Your task to perform on an android device: add a contact in the contacts app Image 0: 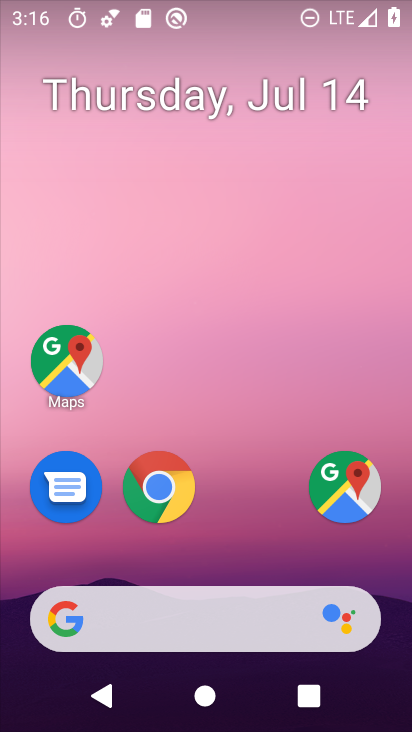
Step 0: drag from (274, 542) to (300, 121)
Your task to perform on an android device: add a contact in the contacts app Image 1: 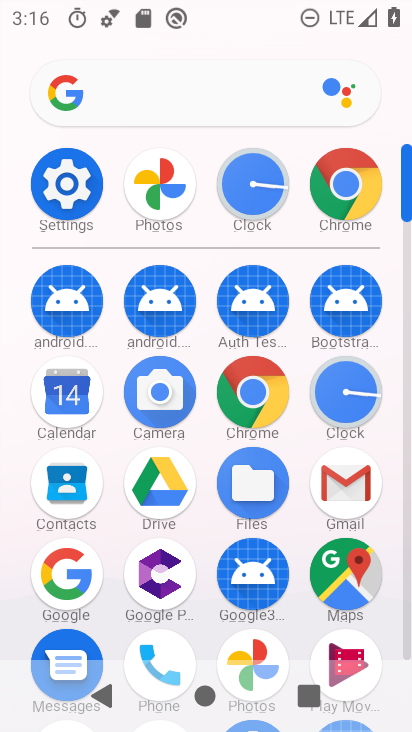
Step 1: click (81, 487)
Your task to perform on an android device: add a contact in the contacts app Image 2: 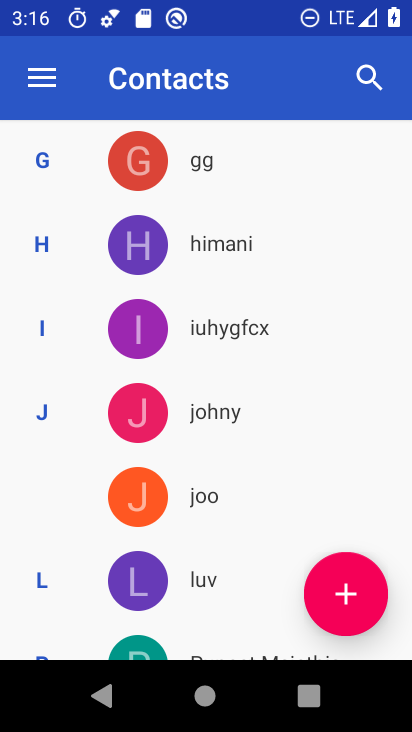
Step 2: click (343, 593)
Your task to perform on an android device: add a contact in the contacts app Image 3: 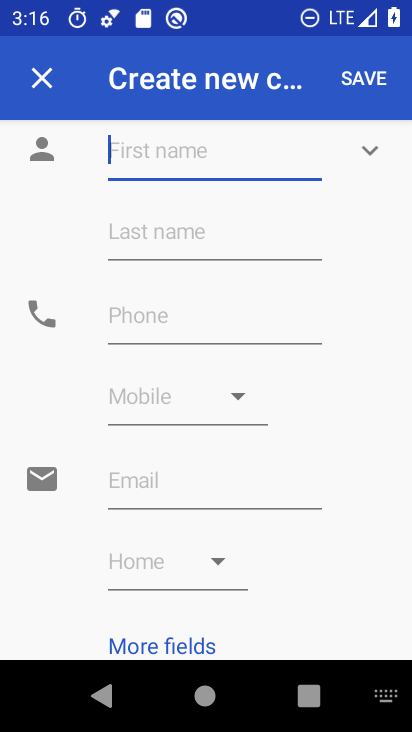
Step 3: type "lolo"
Your task to perform on an android device: add a contact in the contacts app Image 4: 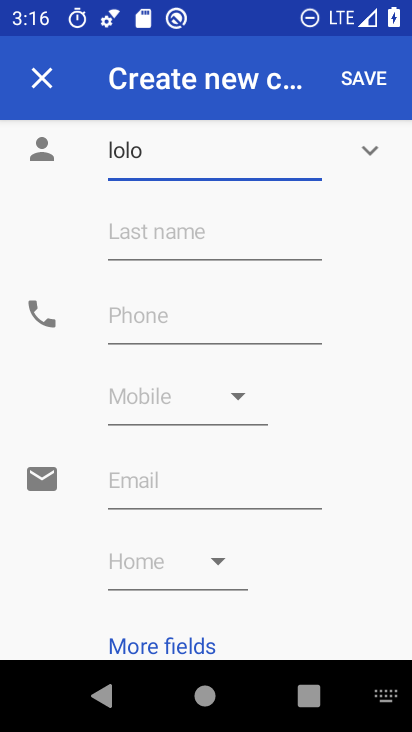
Step 4: click (305, 330)
Your task to perform on an android device: add a contact in the contacts app Image 5: 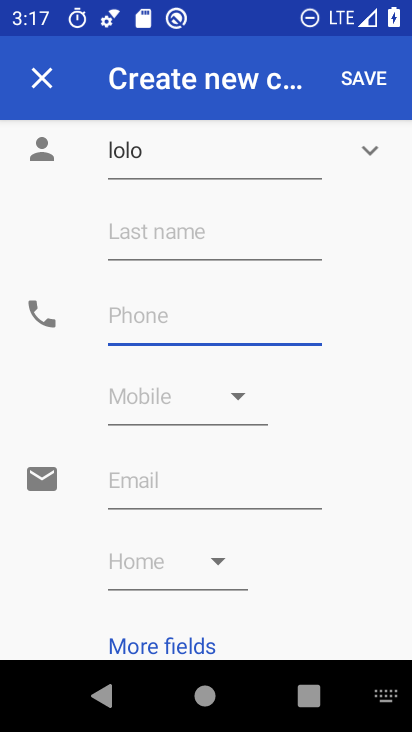
Step 5: type "1234567890"
Your task to perform on an android device: add a contact in the contacts app Image 6: 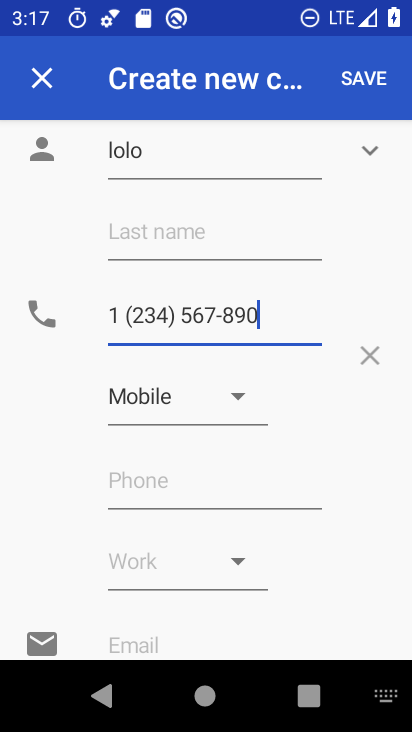
Step 6: click (369, 82)
Your task to perform on an android device: add a contact in the contacts app Image 7: 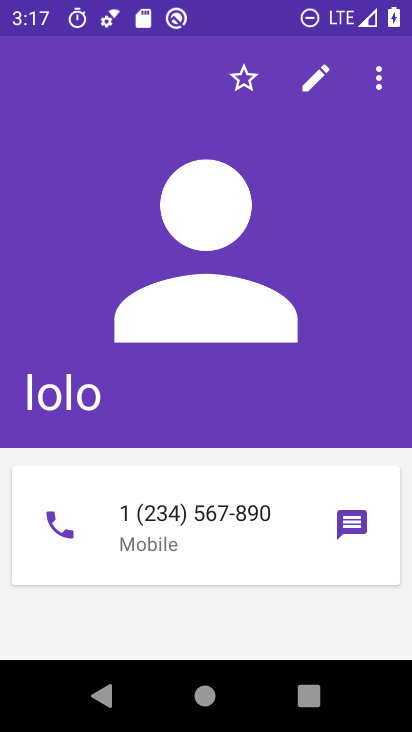
Step 7: task complete